Your task to perform on an android device: turn pop-ups on in chrome Image 0: 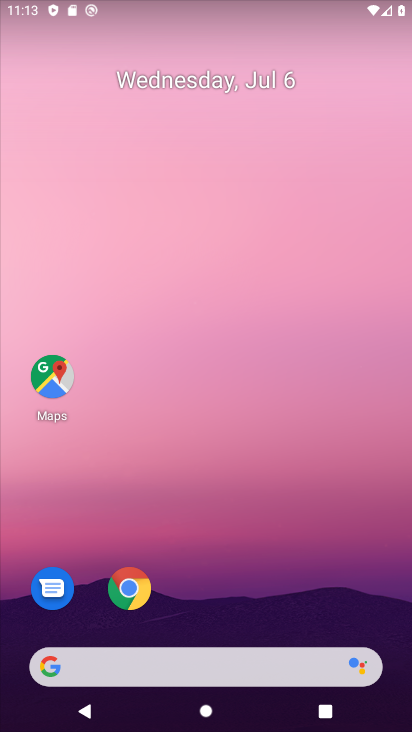
Step 0: drag from (160, 607) to (264, 249)
Your task to perform on an android device: turn pop-ups on in chrome Image 1: 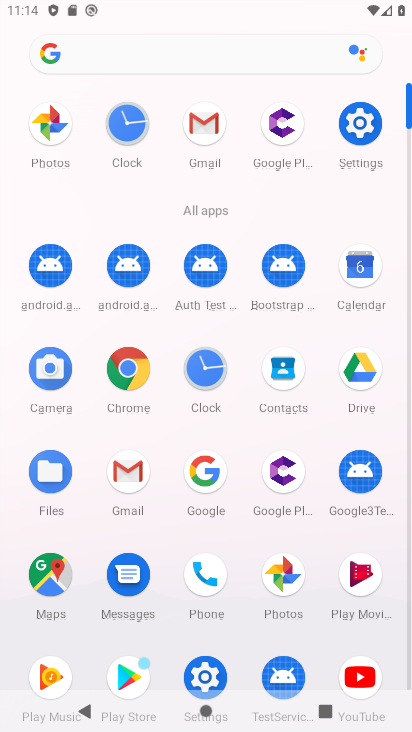
Step 1: click (124, 362)
Your task to perform on an android device: turn pop-ups on in chrome Image 2: 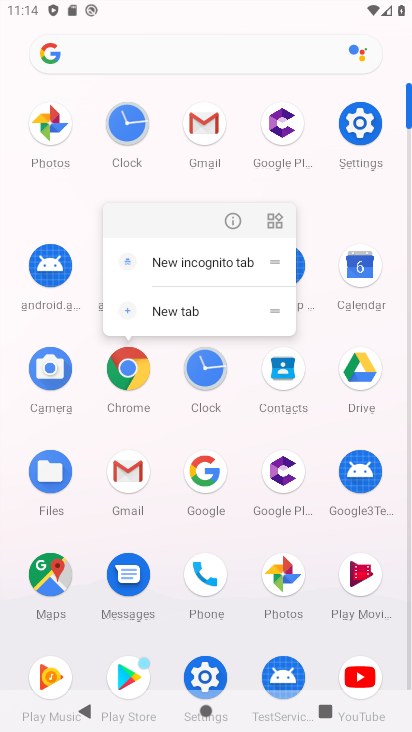
Step 2: click (230, 214)
Your task to perform on an android device: turn pop-ups on in chrome Image 3: 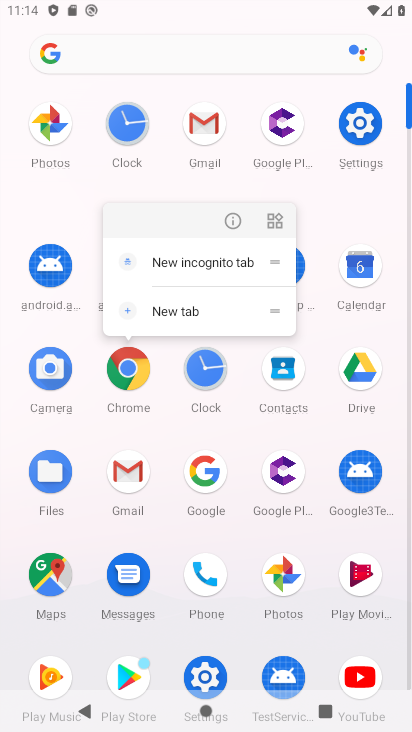
Step 3: click (230, 213)
Your task to perform on an android device: turn pop-ups on in chrome Image 4: 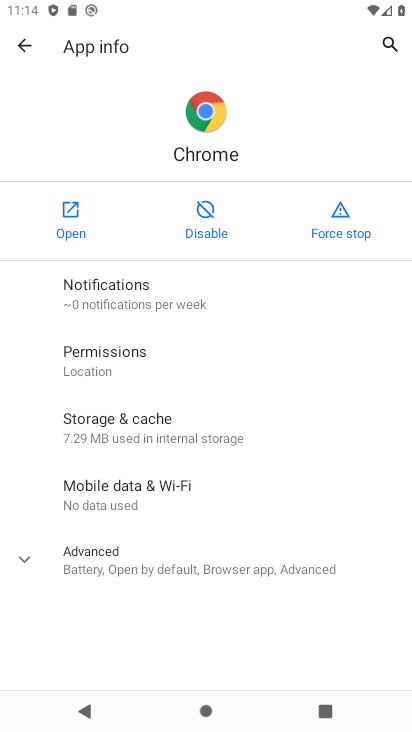
Step 4: click (74, 217)
Your task to perform on an android device: turn pop-ups on in chrome Image 5: 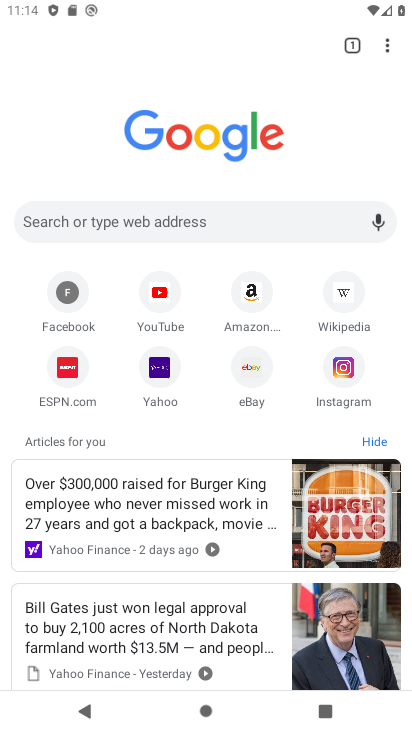
Step 5: drag from (203, 440) to (231, 97)
Your task to perform on an android device: turn pop-ups on in chrome Image 6: 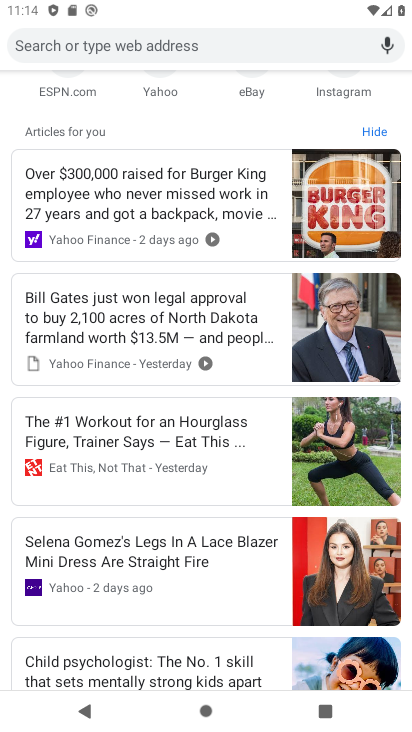
Step 6: drag from (187, 182) to (230, 728)
Your task to perform on an android device: turn pop-ups on in chrome Image 7: 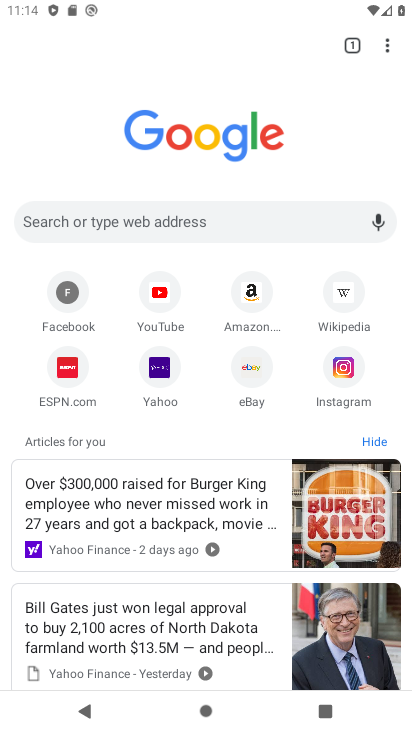
Step 7: click (381, 49)
Your task to perform on an android device: turn pop-ups on in chrome Image 8: 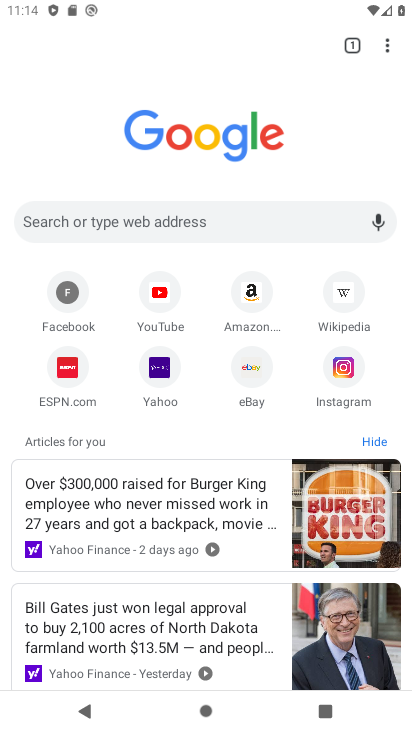
Step 8: click (387, 49)
Your task to perform on an android device: turn pop-ups on in chrome Image 9: 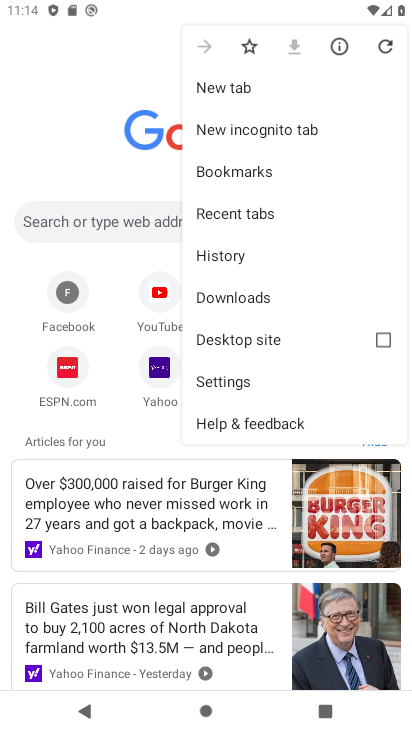
Step 9: drag from (230, 386) to (352, 97)
Your task to perform on an android device: turn pop-ups on in chrome Image 10: 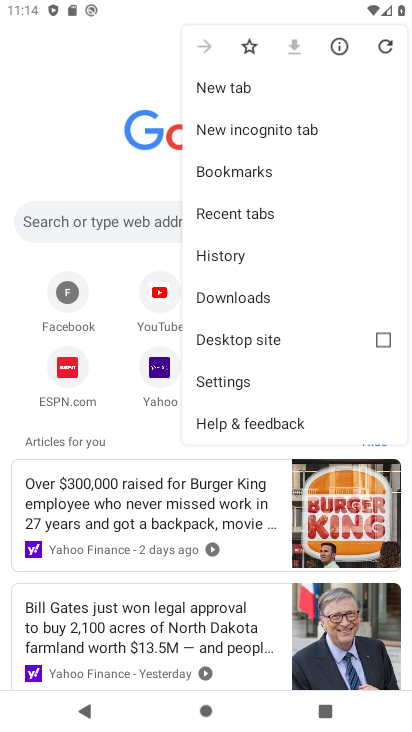
Step 10: click (230, 384)
Your task to perform on an android device: turn pop-ups on in chrome Image 11: 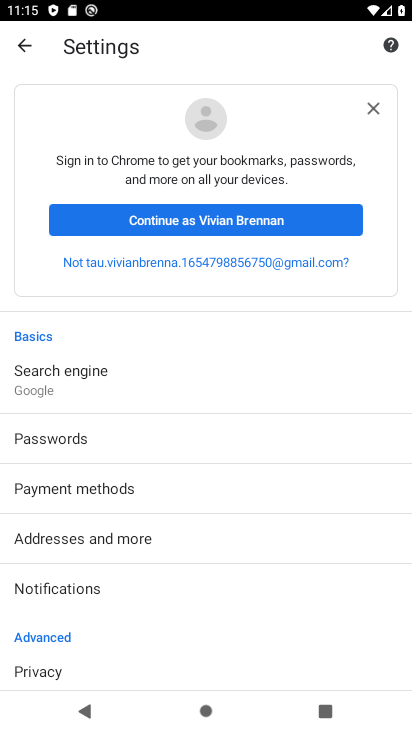
Step 11: drag from (171, 486) to (233, 270)
Your task to perform on an android device: turn pop-ups on in chrome Image 12: 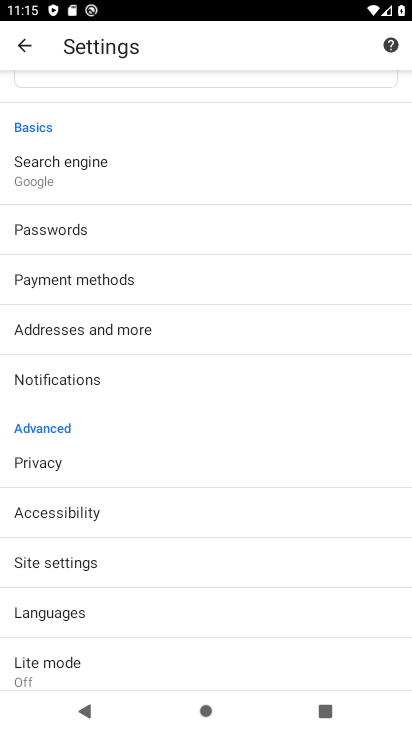
Step 12: drag from (118, 420) to (209, 234)
Your task to perform on an android device: turn pop-ups on in chrome Image 13: 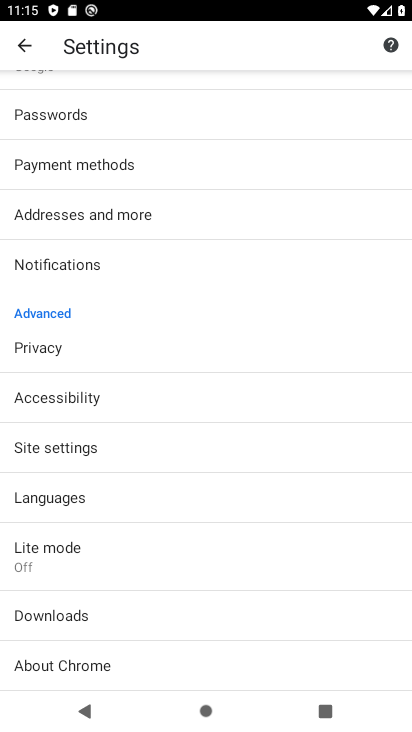
Step 13: click (128, 420)
Your task to perform on an android device: turn pop-ups on in chrome Image 14: 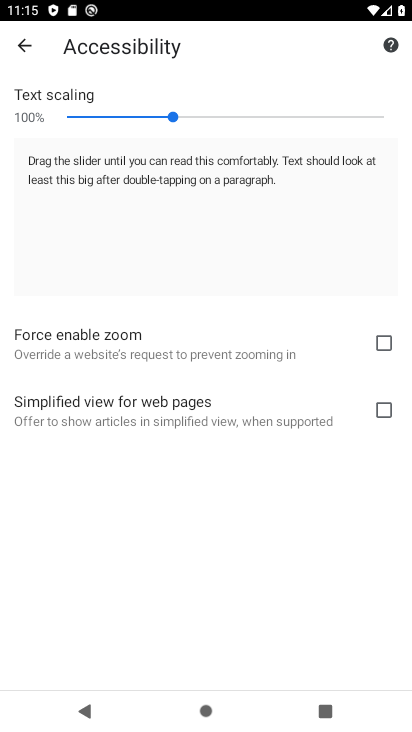
Step 14: click (5, 46)
Your task to perform on an android device: turn pop-ups on in chrome Image 15: 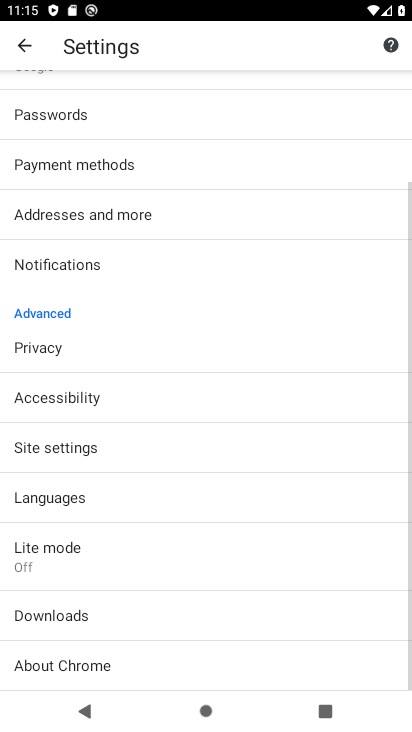
Step 15: click (113, 447)
Your task to perform on an android device: turn pop-ups on in chrome Image 16: 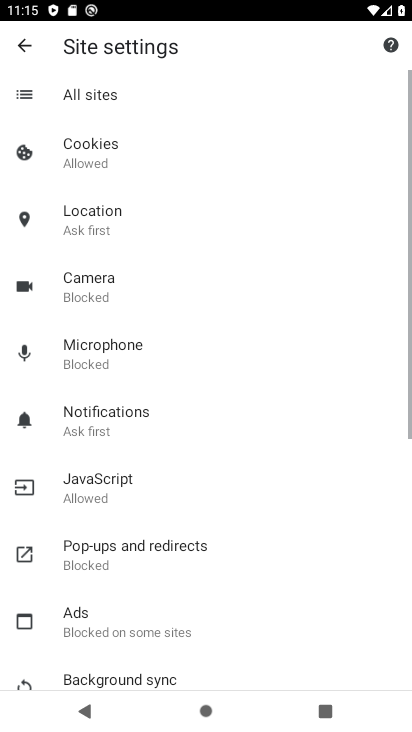
Step 16: drag from (196, 449) to (266, 164)
Your task to perform on an android device: turn pop-ups on in chrome Image 17: 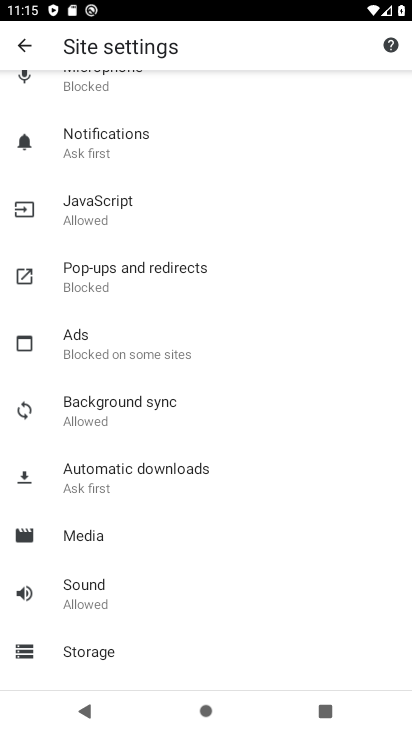
Step 17: click (110, 274)
Your task to perform on an android device: turn pop-ups on in chrome Image 18: 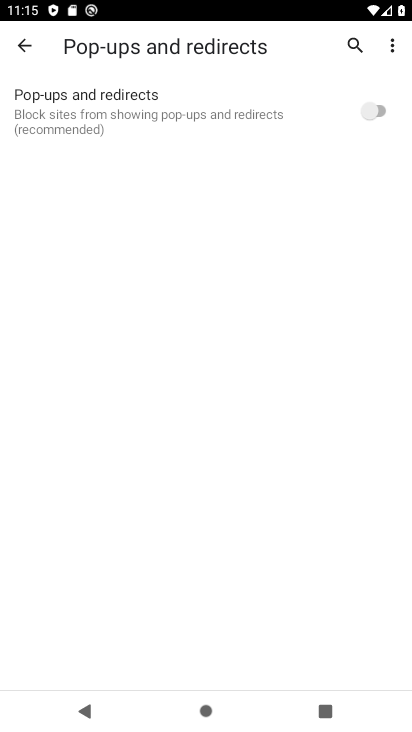
Step 18: click (270, 111)
Your task to perform on an android device: turn pop-ups on in chrome Image 19: 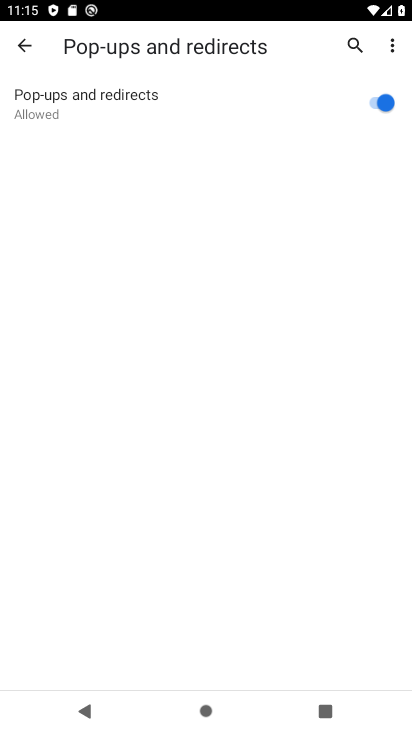
Step 19: task complete